Your task to perform on an android device: toggle location history Image 0: 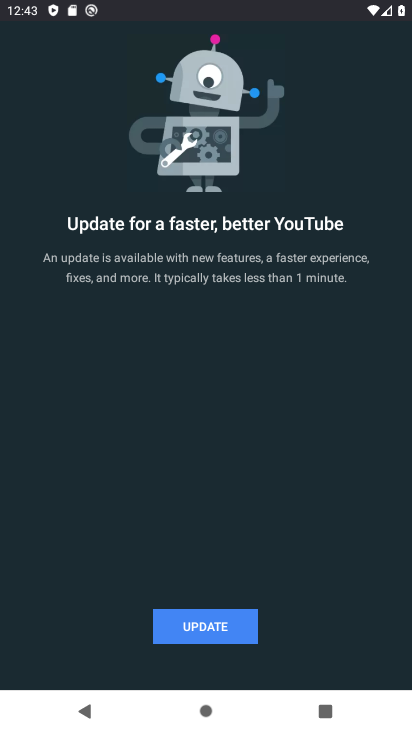
Step 0: drag from (145, 572) to (178, 257)
Your task to perform on an android device: toggle location history Image 1: 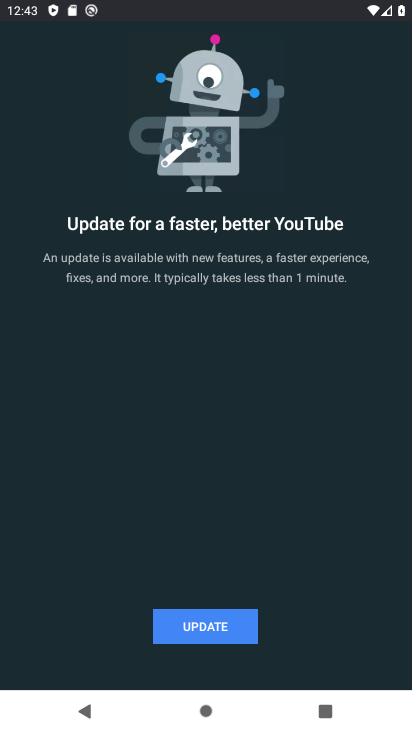
Step 1: press home button
Your task to perform on an android device: toggle location history Image 2: 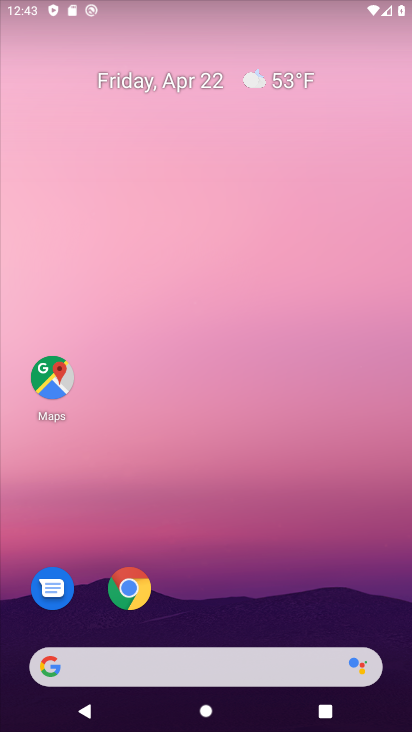
Step 2: drag from (284, 131) to (296, 15)
Your task to perform on an android device: toggle location history Image 3: 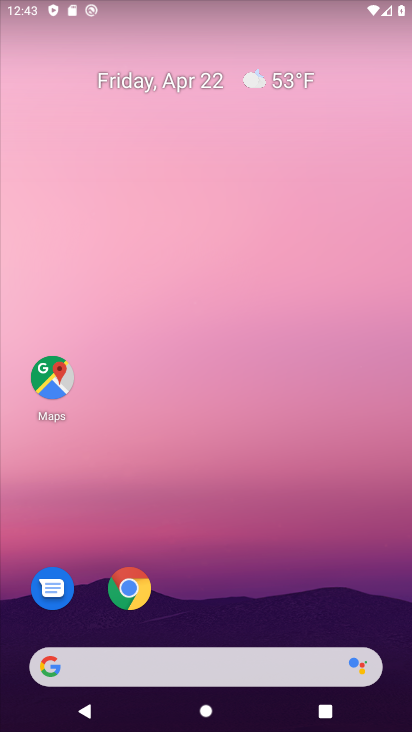
Step 3: drag from (249, 541) to (302, 78)
Your task to perform on an android device: toggle location history Image 4: 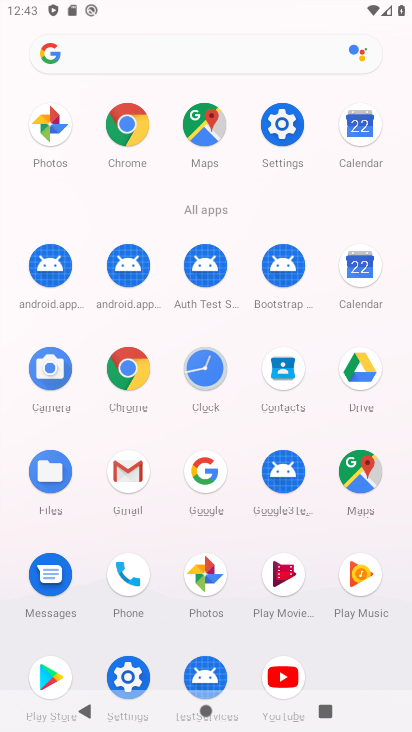
Step 4: click (286, 120)
Your task to perform on an android device: toggle location history Image 5: 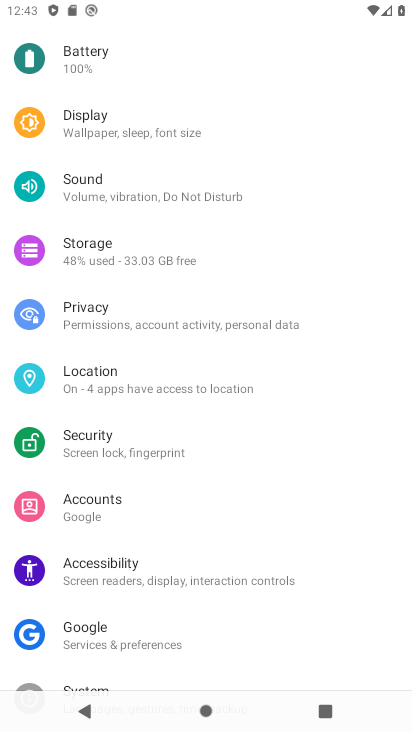
Step 5: click (165, 382)
Your task to perform on an android device: toggle location history Image 6: 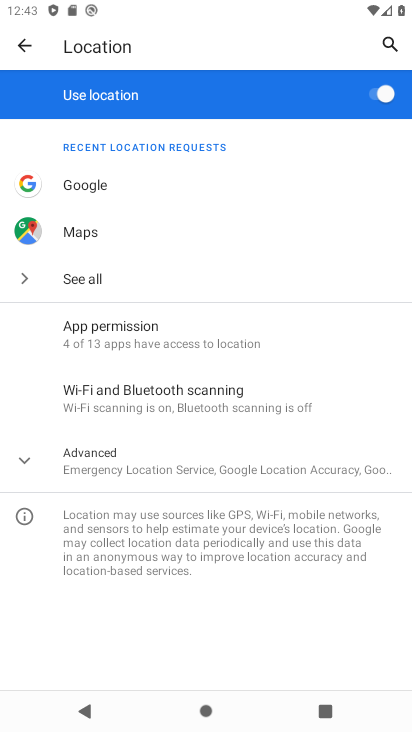
Step 6: click (149, 464)
Your task to perform on an android device: toggle location history Image 7: 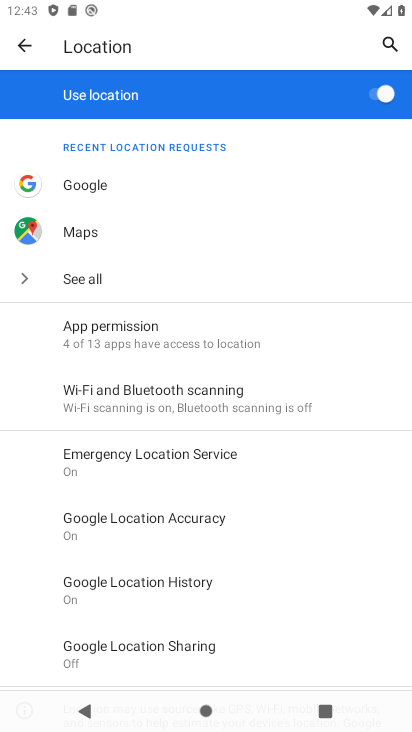
Step 7: click (111, 578)
Your task to perform on an android device: toggle location history Image 8: 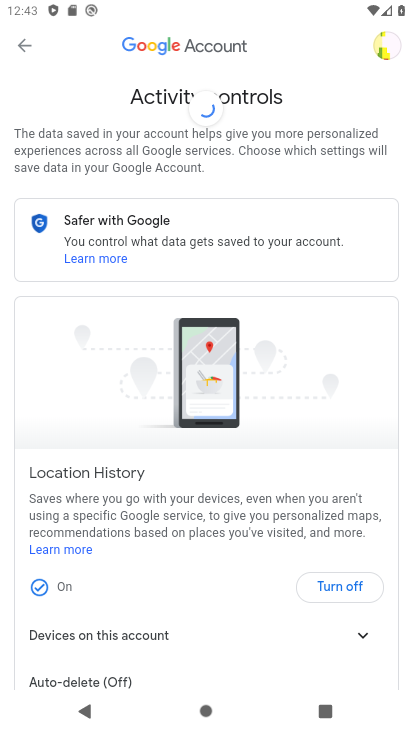
Step 8: click (336, 596)
Your task to perform on an android device: toggle location history Image 9: 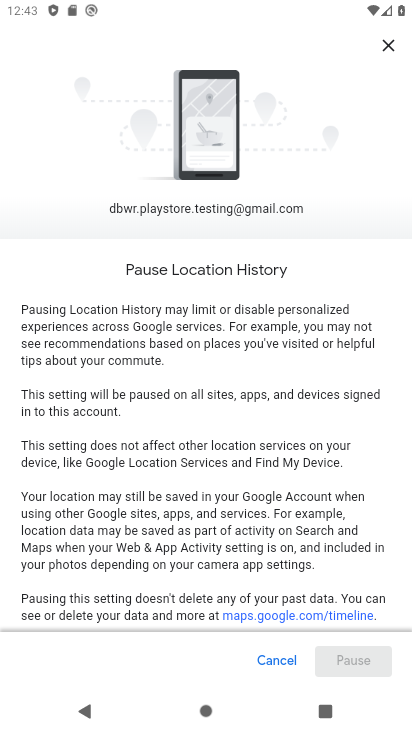
Step 9: drag from (211, 560) to (262, 131)
Your task to perform on an android device: toggle location history Image 10: 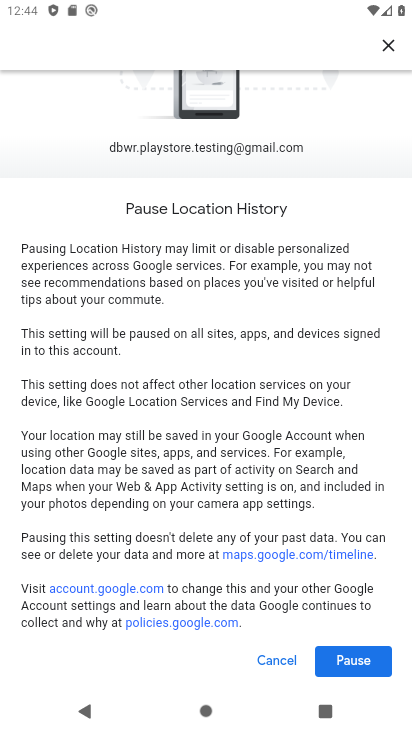
Step 10: drag from (206, 558) to (267, 192)
Your task to perform on an android device: toggle location history Image 11: 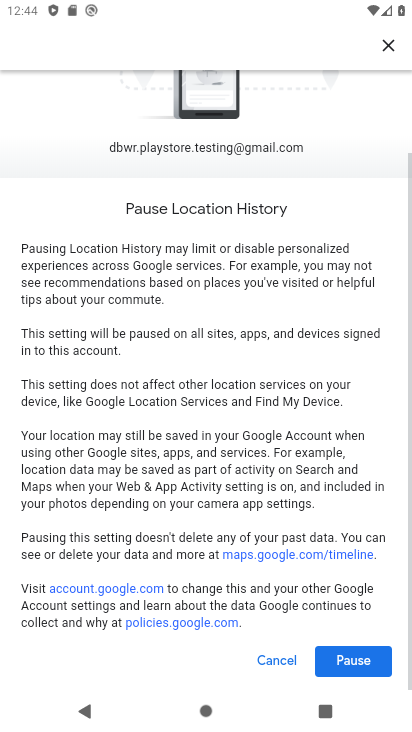
Step 11: click (357, 660)
Your task to perform on an android device: toggle location history Image 12: 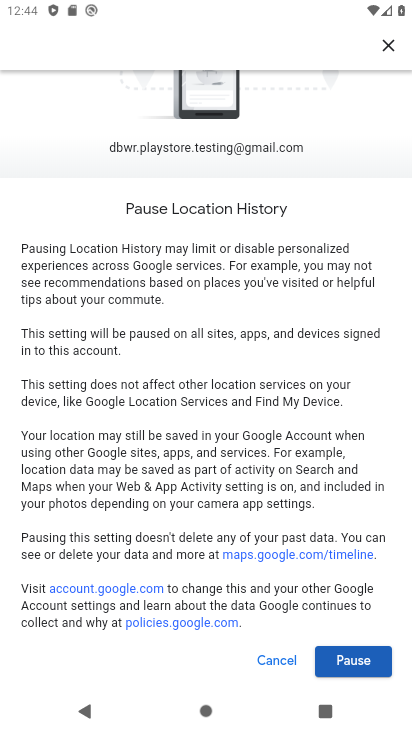
Step 12: click (350, 660)
Your task to perform on an android device: toggle location history Image 13: 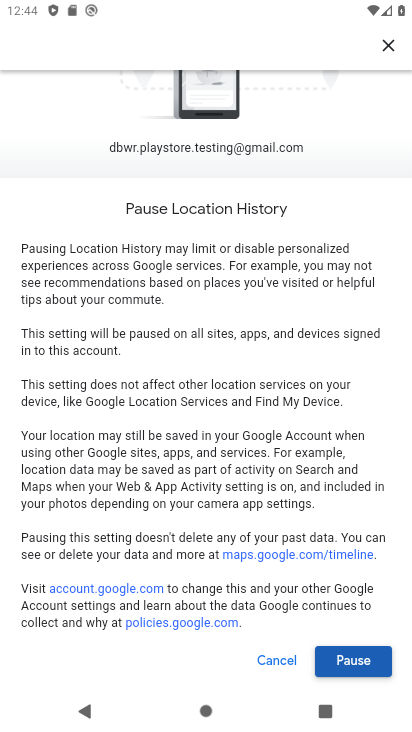
Step 13: drag from (203, 413) to (236, 126)
Your task to perform on an android device: toggle location history Image 14: 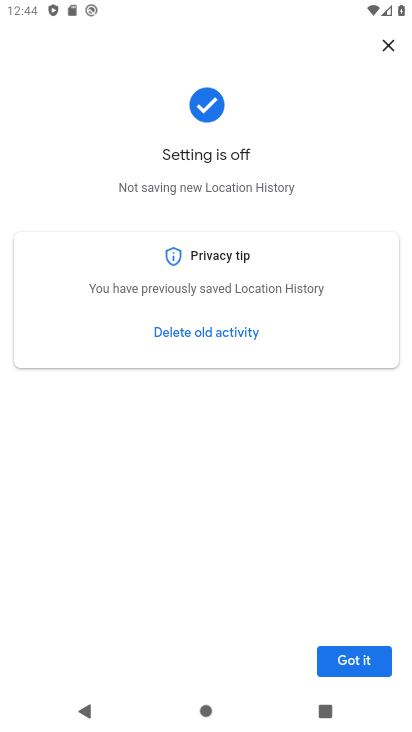
Step 14: click (352, 652)
Your task to perform on an android device: toggle location history Image 15: 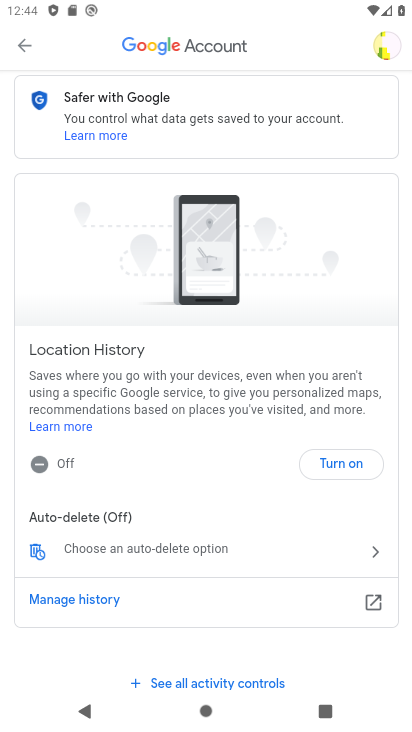
Step 15: task complete